Your task to perform on an android device: toggle data saver in the chrome app Image 0: 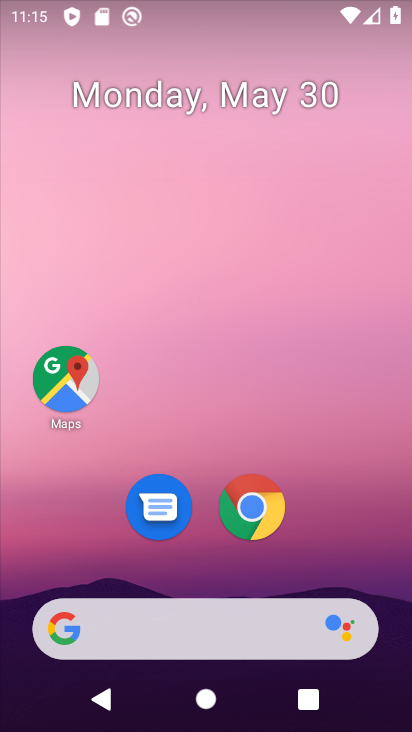
Step 0: press home button
Your task to perform on an android device: toggle data saver in the chrome app Image 1: 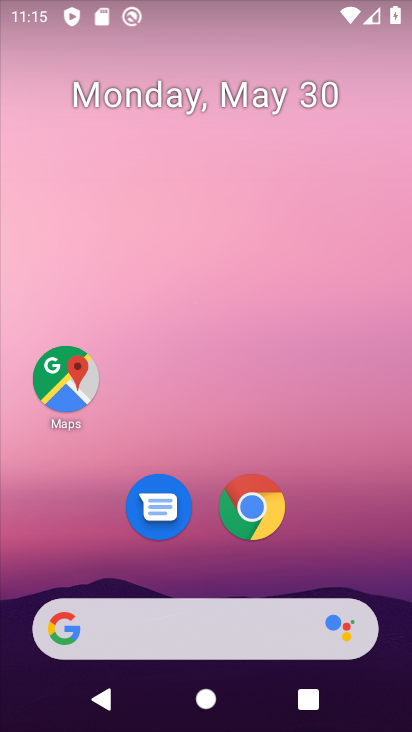
Step 1: click (258, 520)
Your task to perform on an android device: toggle data saver in the chrome app Image 2: 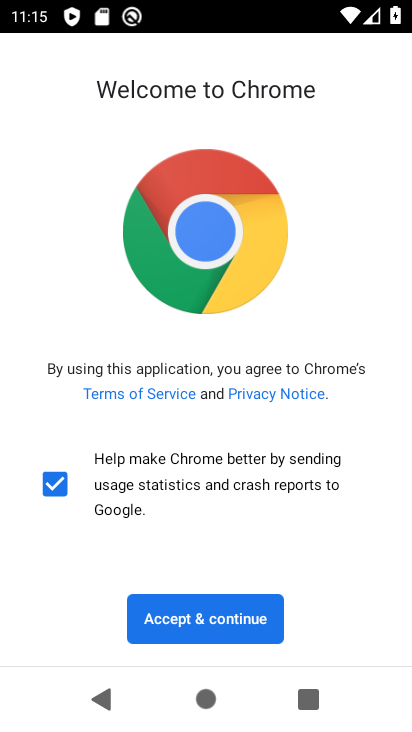
Step 2: click (248, 626)
Your task to perform on an android device: toggle data saver in the chrome app Image 3: 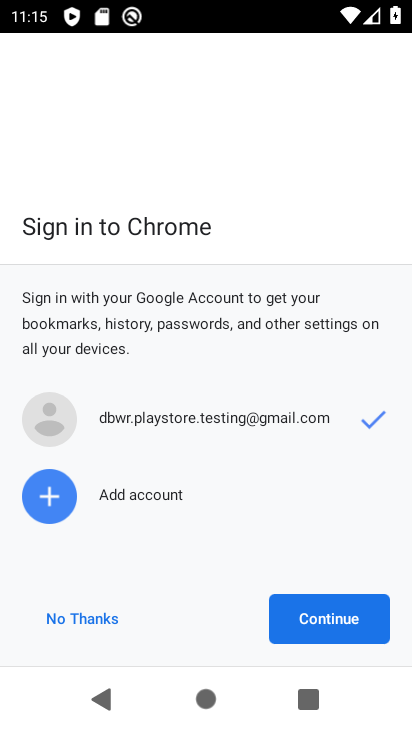
Step 3: click (369, 625)
Your task to perform on an android device: toggle data saver in the chrome app Image 4: 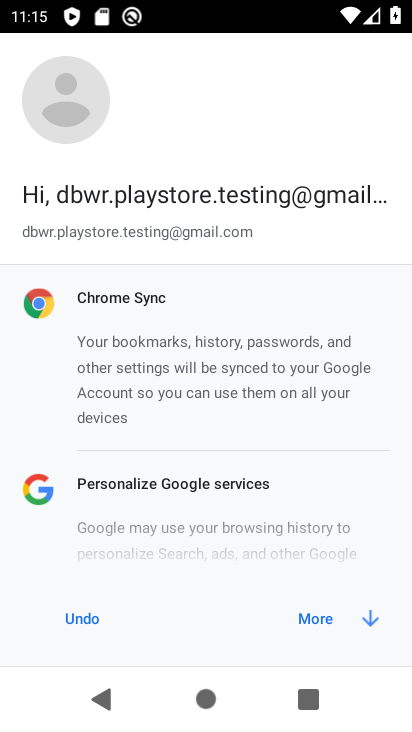
Step 4: click (369, 625)
Your task to perform on an android device: toggle data saver in the chrome app Image 5: 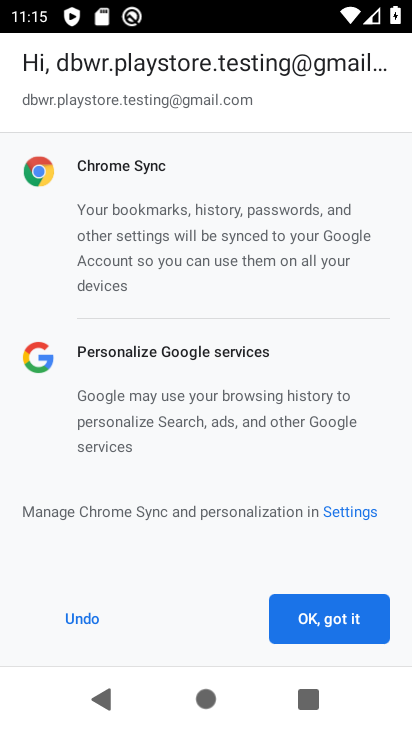
Step 5: click (348, 616)
Your task to perform on an android device: toggle data saver in the chrome app Image 6: 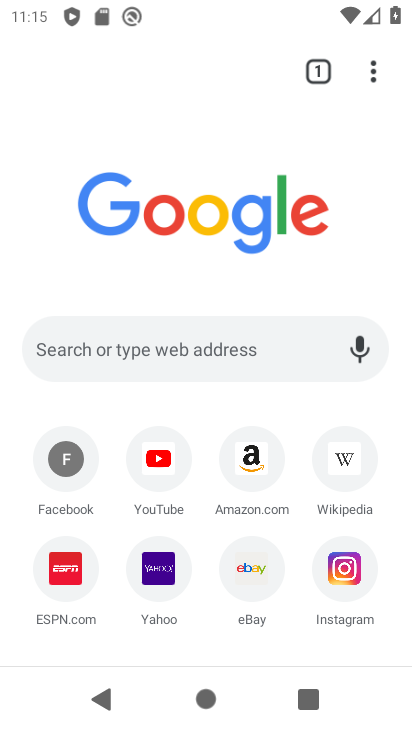
Step 6: drag from (371, 76) to (182, 498)
Your task to perform on an android device: toggle data saver in the chrome app Image 7: 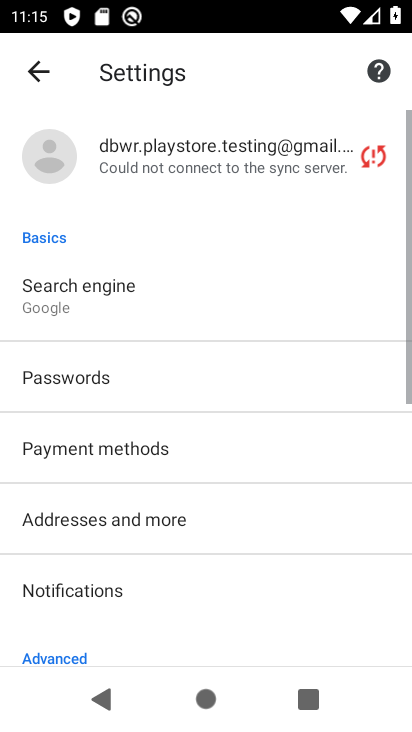
Step 7: drag from (315, 613) to (275, 264)
Your task to perform on an android device: toggle data saver in the chrome app Image 8: 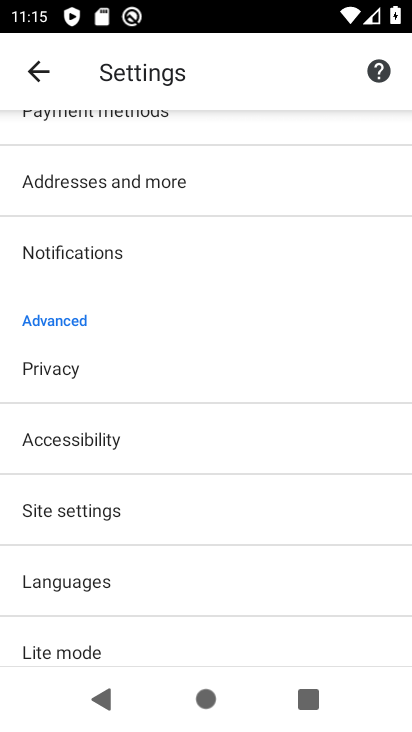
Step 8: click (180, 640)
Your task to perform on an android device: toggle data saver in the chrome app Image 9: 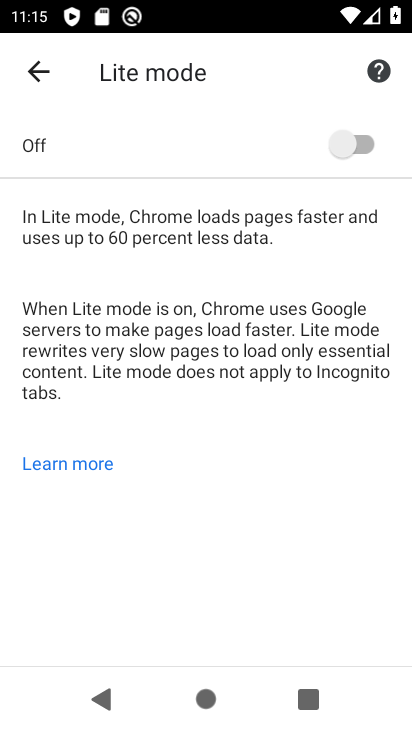
Step 9: click (356, 141)
Your task to perform on an android device: toggle data saver in the chrome app Image 10: 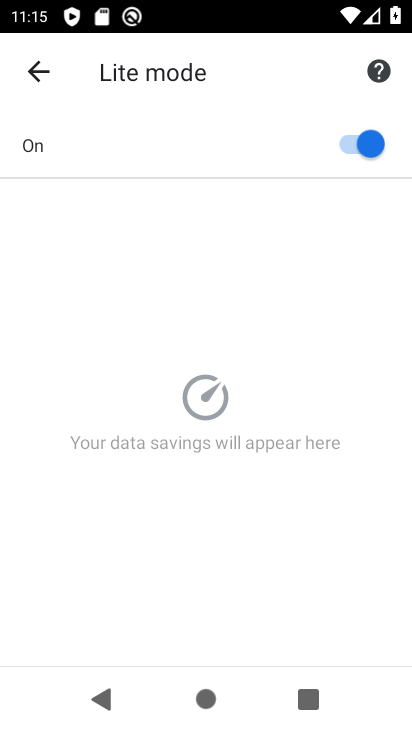
Step 10: task complete